Your task to perform on an android device: check data usage Image 0: 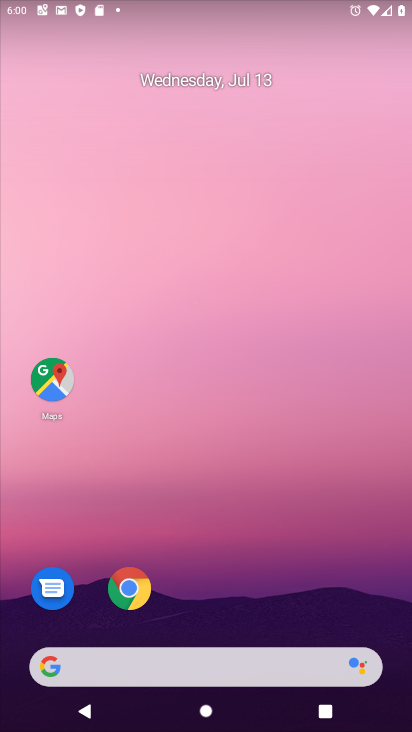
Step 0: drag from (187, 509) to (245, 205)
Your task to perform on an android device: check data usage Image 1: 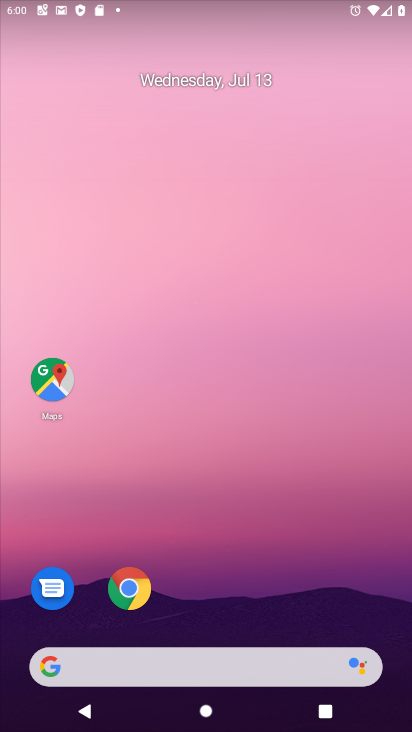
Step 1: drag from (198, 572) to (272, 99)
Your task to perform on an android device: check data usage Image 2: 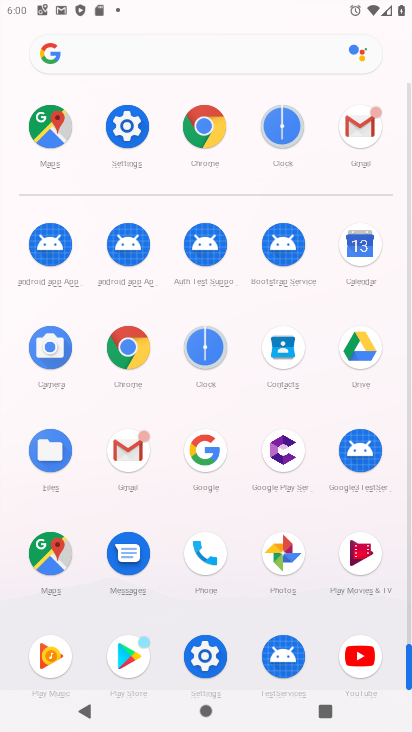
Step 2: click (122, 127)
Your task to perform on an android device: check data usage Image 3: 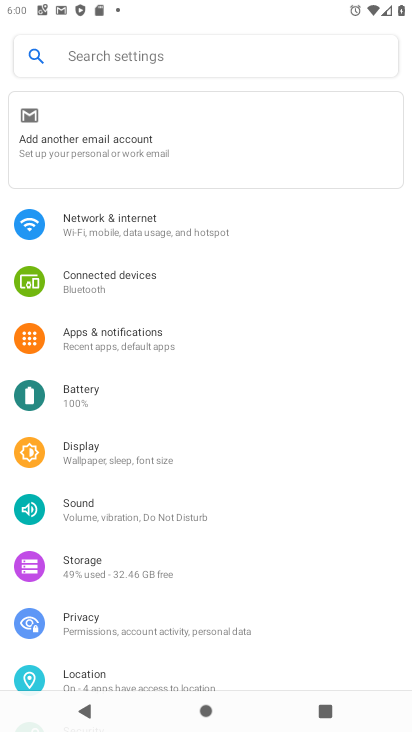
Step 3: click (105, 218)
Your task to perform on an android device: check data usage Image 4: 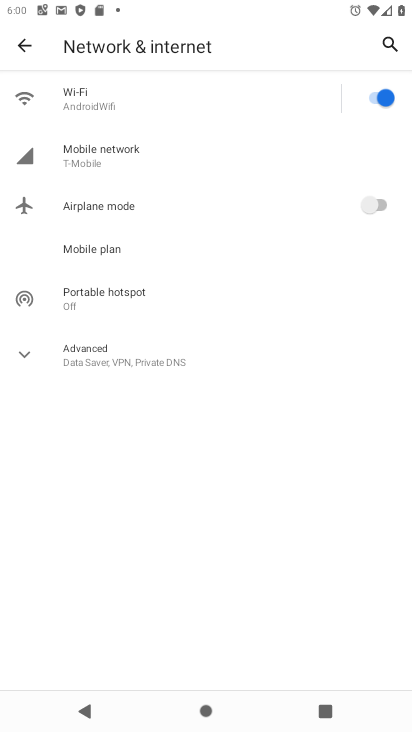
Step 4: click (104, 159)
Your task to perform on an android device: check data usage Image 5: 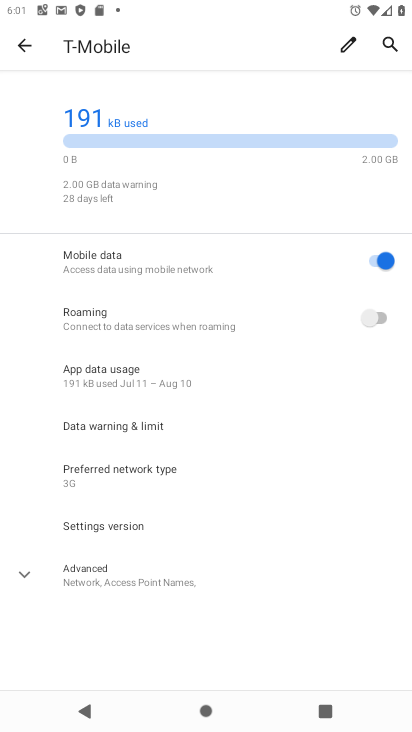
Step 5: task complete